Your task to perform on an android device: open chrome privacy settings Image 0: 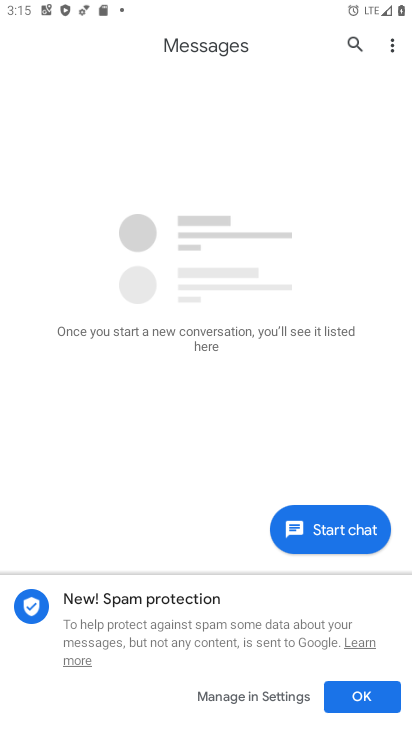
Step 0: press home button
Your task to perform on an android device: open chrome privacy settings Image 1: 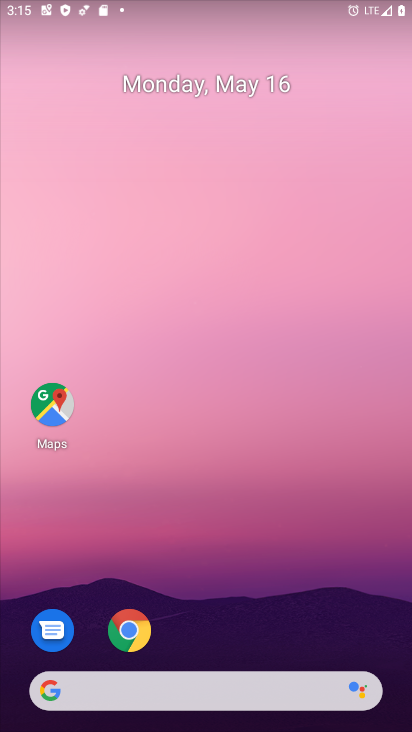
Step 1: drag from (204, 645) to (248, 160)
Your task to perform on an android device: open chrome privacy settings Image 2: 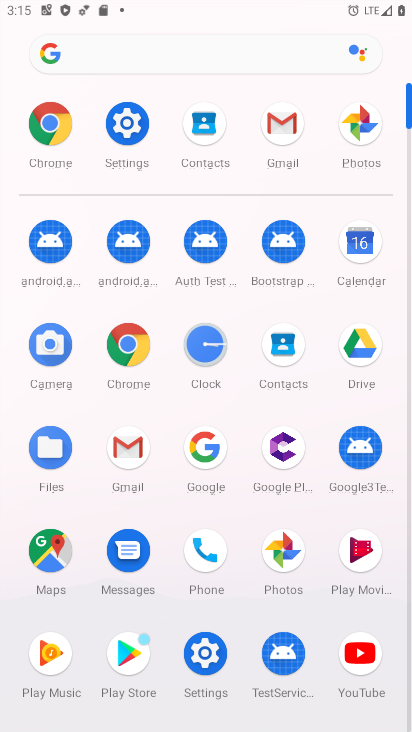
Step 2: click (123, 122)
Your task to perform on an android device: open chrome privacy settings Image 3: 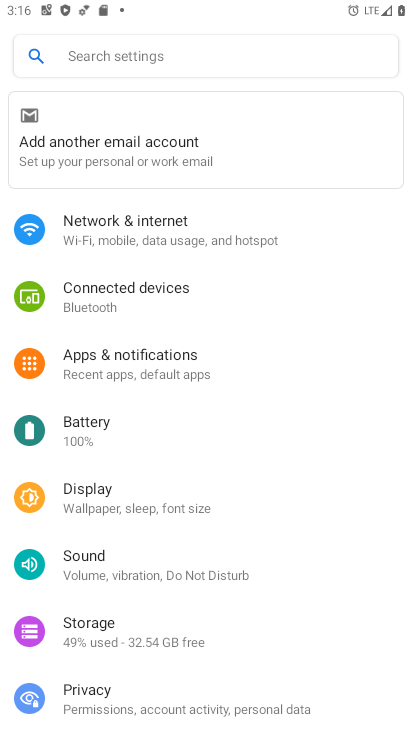
Step 3: press home button
Your task to perform on an android device: open chrome privacy settings Image 4: 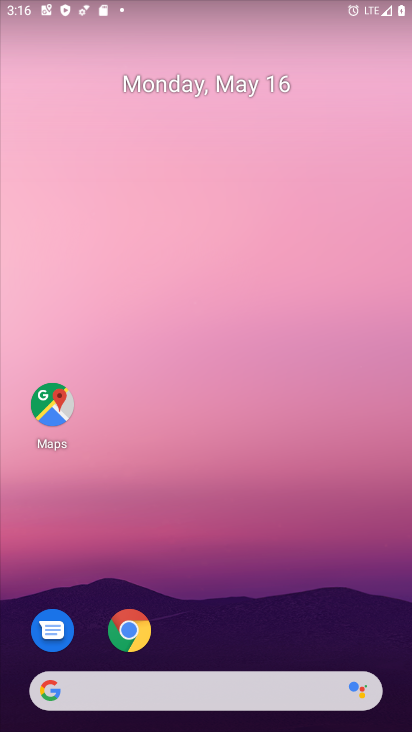
Step 4: click (135, 625)
Your task to perform on an android device: open chrome privacy settings Image 5: 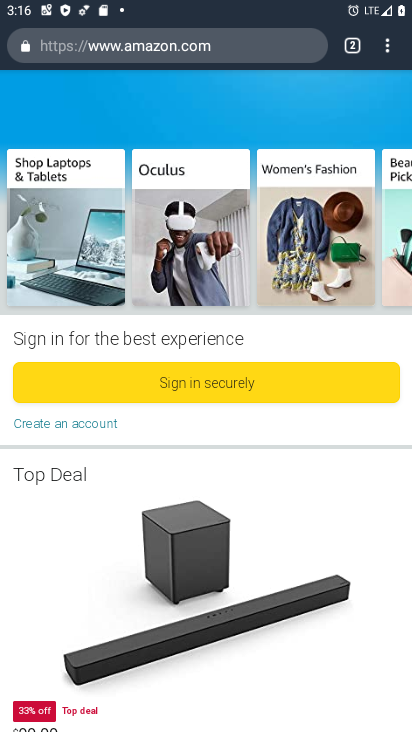
Step 5: click (384, 37)
Your task to perform on an android device: open chrome privacy settings Image 6: 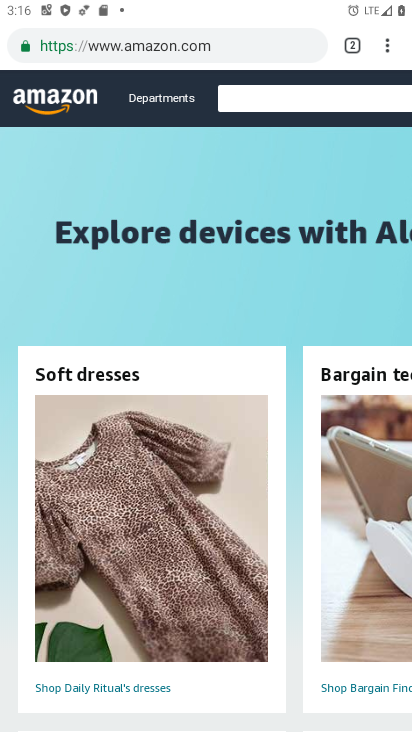
Step 6: click (388, 45)
Your task to perform on an android device: open chrome privacy settings Image 7: 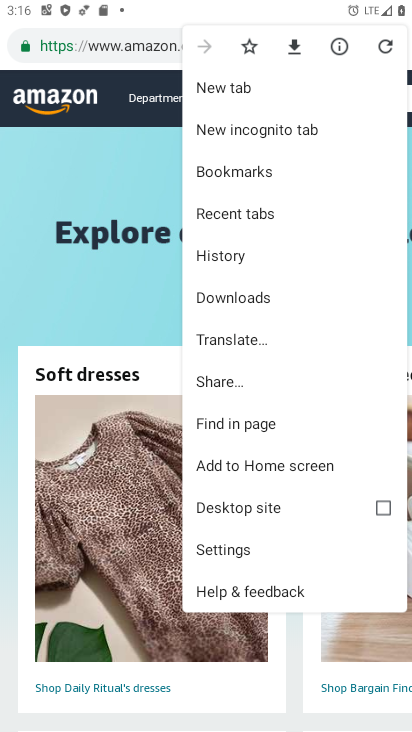
Step 7: click (233, 550)
Your task to perform on an android device: open chrome privacy settings Image 8: 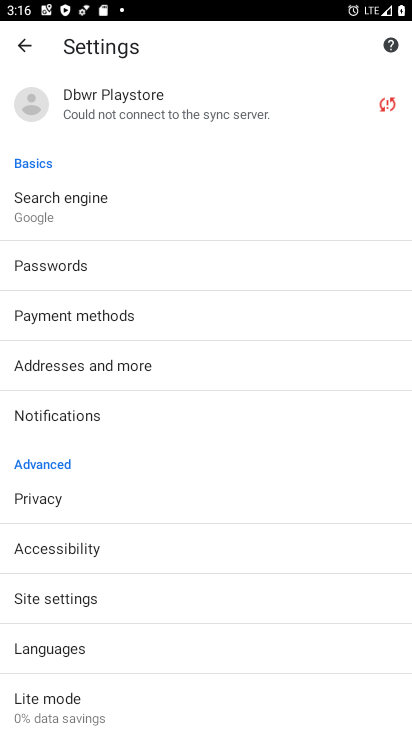
Step 8: click (61, 496)
Your task to perform on an android device: open chrome privacy settings Image 9: 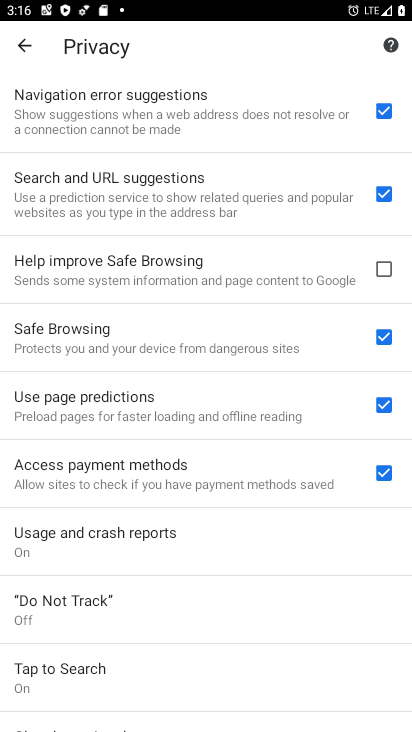
Step 9: task complete